Your task to perform on an android device: Go to notification settings Image 0: 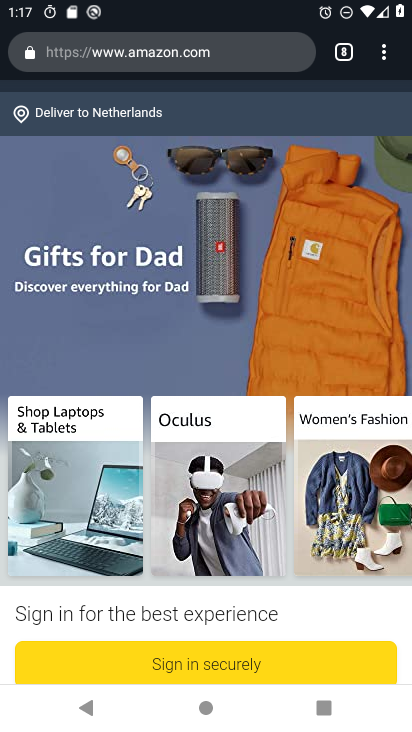
Step 0: press home button
Your task to perform on an android device: Go to notification settings Image 1: 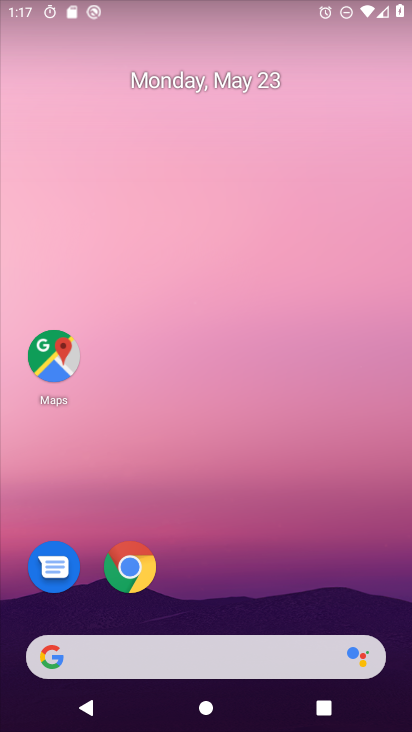
Step 1: drag from (174, 622) to (311, 154)
Your task to perform on an android device: Go to notification settings Image 2: 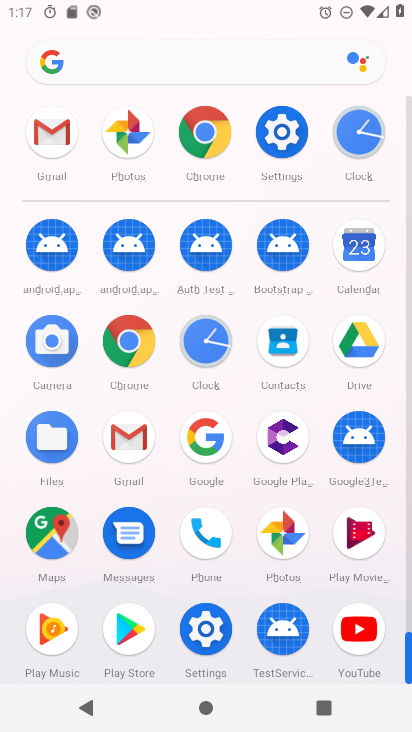
Step 2: click (257, 144)
Your task to perform on an android device: Go to notification settings Image 3: 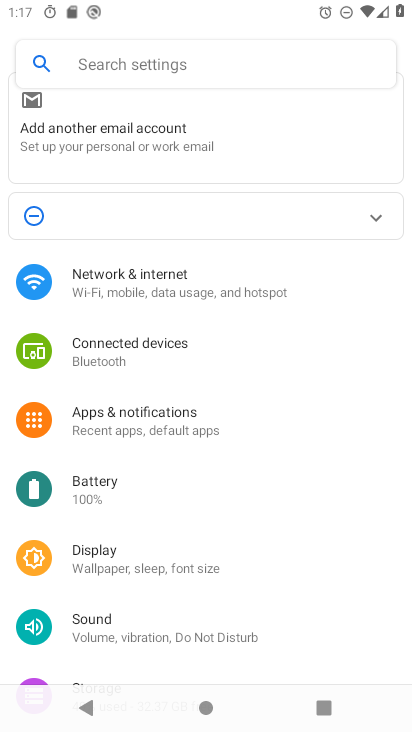
Step 3: click (107, 412)
Your task to perform on an android device: Go to notification settings Image 4: 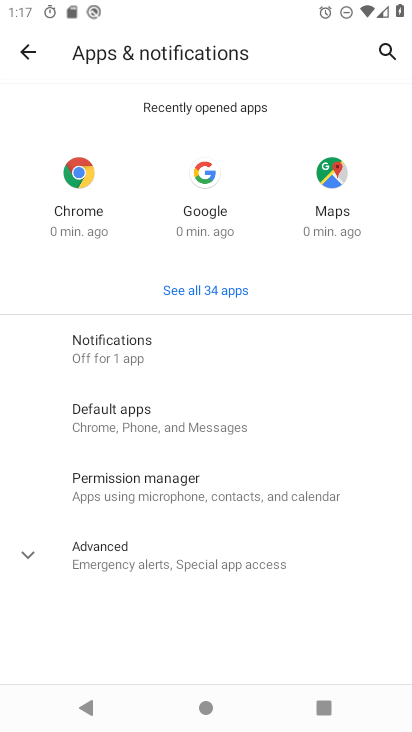
Step 4: task complete